Your task to perform on an android device: clear history in the chrome app Image 0: 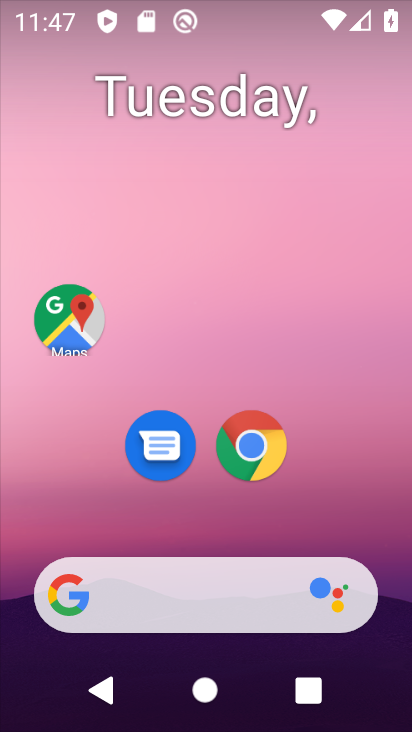
Step 0: click (248, 447)
Your task to perform on an android device: clear history in the chrome app Image 1: 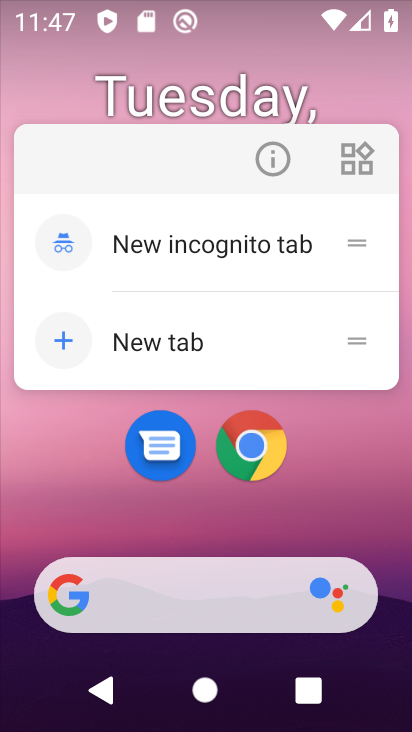
Step 1: click (321, 518)
Your task to perform on an android device: clear history in the chrome app Image 2: 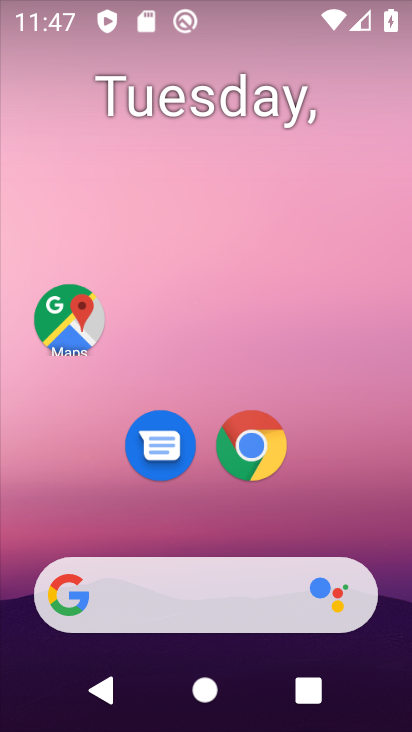
Step 2: drag from (323, 517) to (291, 13)
Your task to perform on an android device: clear history in the chrome app Image 3: 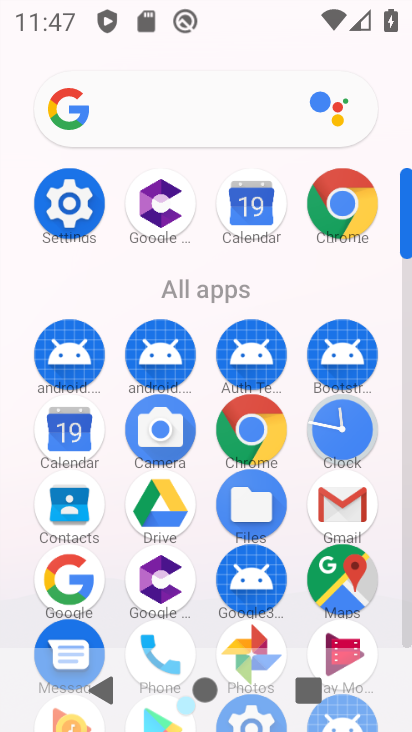
Step 3: click (247, 420)
Your task to perform on an android device: clear history in the chrome app Image 4: 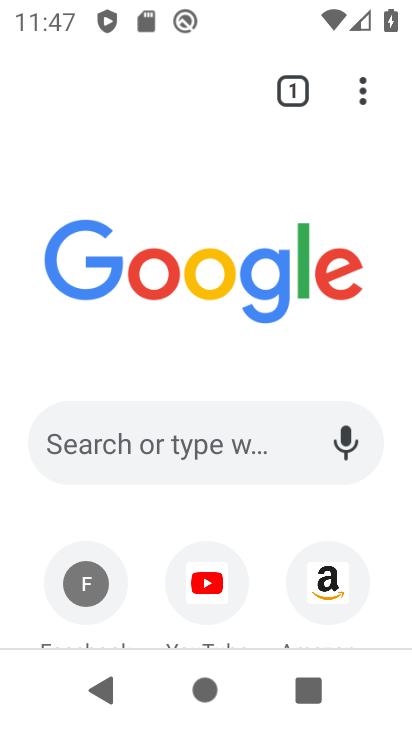
Step 4: click (364, 90)
Your task to perform on an android device: clear history in the chrome app Image 5: 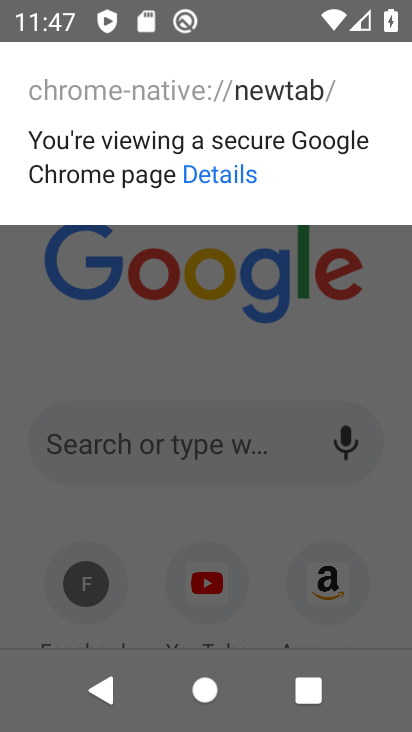
Step 5: click (369, 284)
Your task to perform on an android device: clear history in the chrome app Image 6: 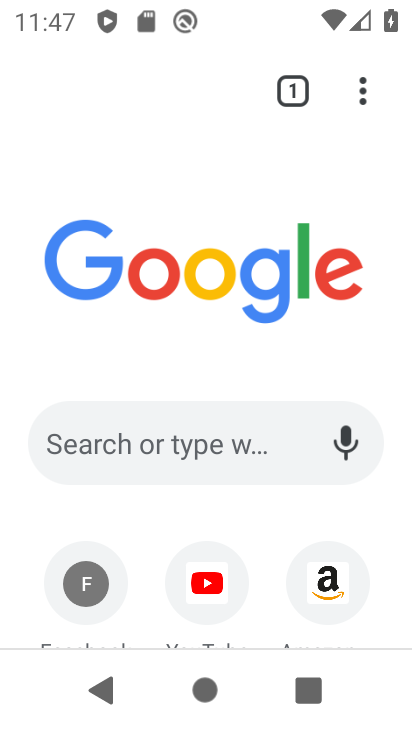
Step 6: task complete